Your task to perform on an android device: What's the latest video from GameSpot Reviews? Image 0: 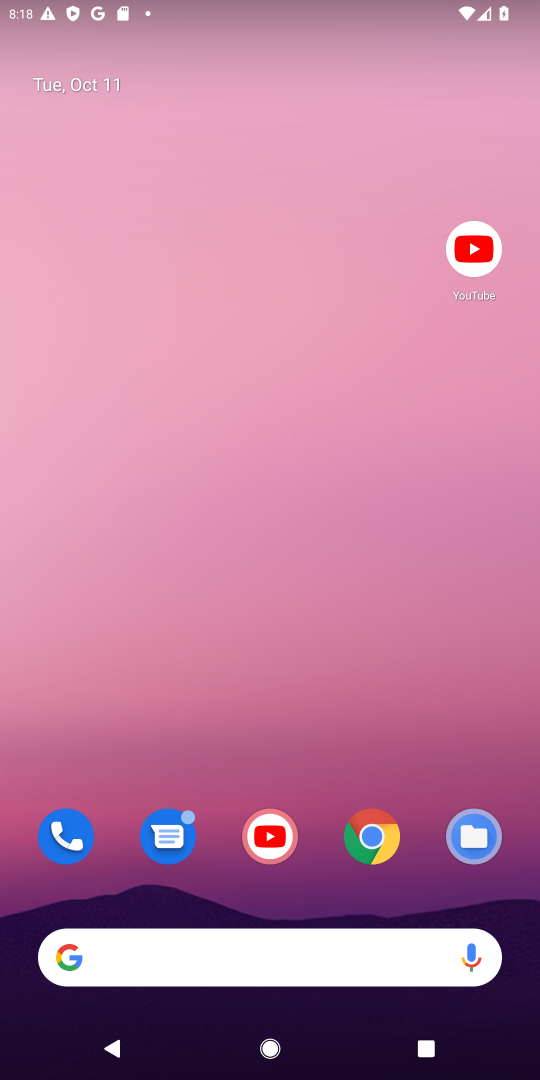
Step 0: click (371, 836)
Your task to perform on an android device: What's the latest video from GameSpot Reviews? Image 1: 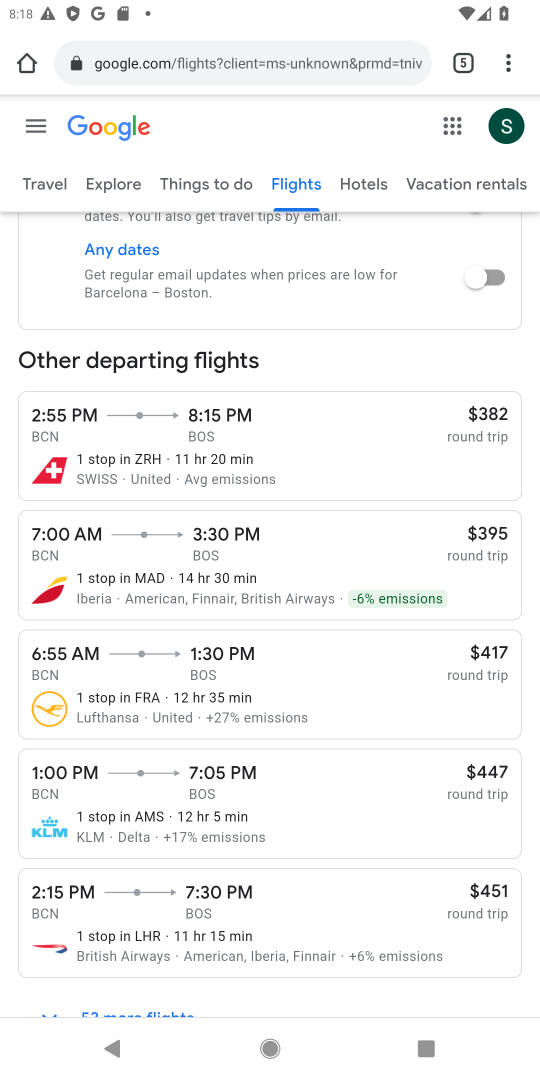
Step 1: click (274, 68)
Your task to perform on an android device: What's the latest video from GameSpot Reviews? Image 2: 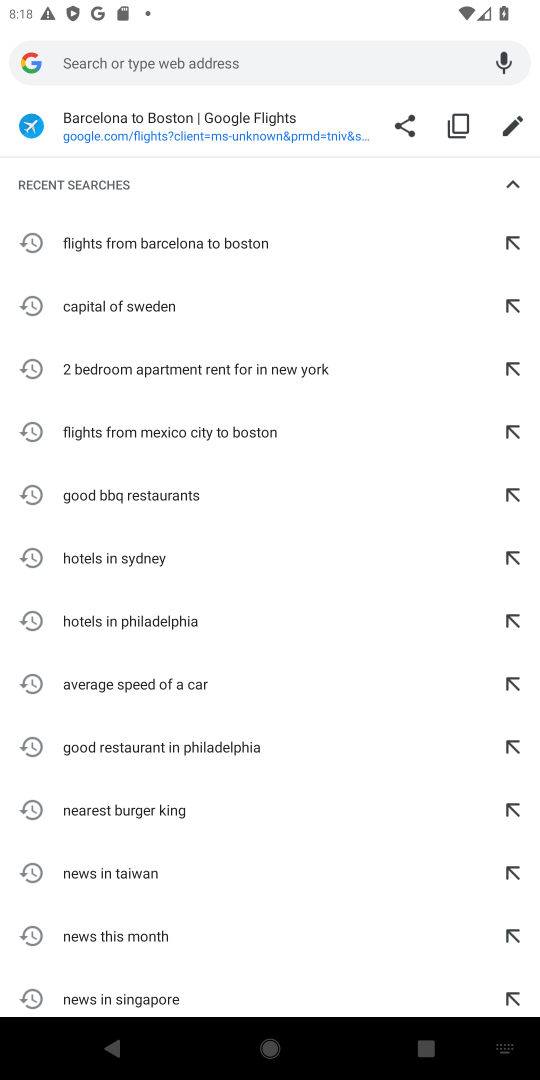
Step 2: type "latest video from GameSpot Reviews"
Your task to perform on an android device: What's the latest video from GameSpot Reviews? Image 3: 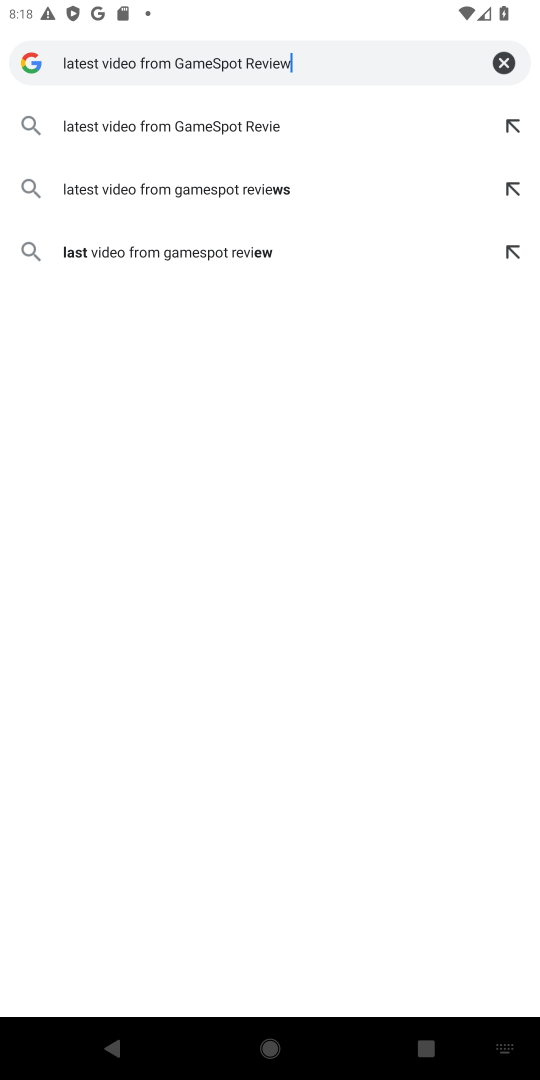
Step 3: press enter
Your task to perform on an android device: What's the latest video from GameSpot Reviews? Image 4: 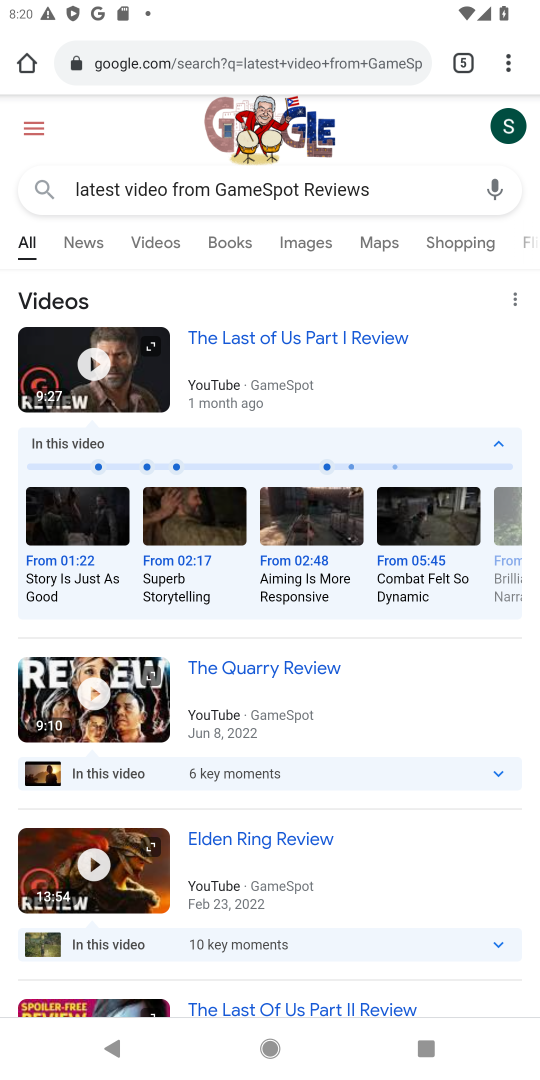
Step 4: click (92, 359)
Your task to perform on an android device: What's the latest video from GameSpot Reviews? Image 5: 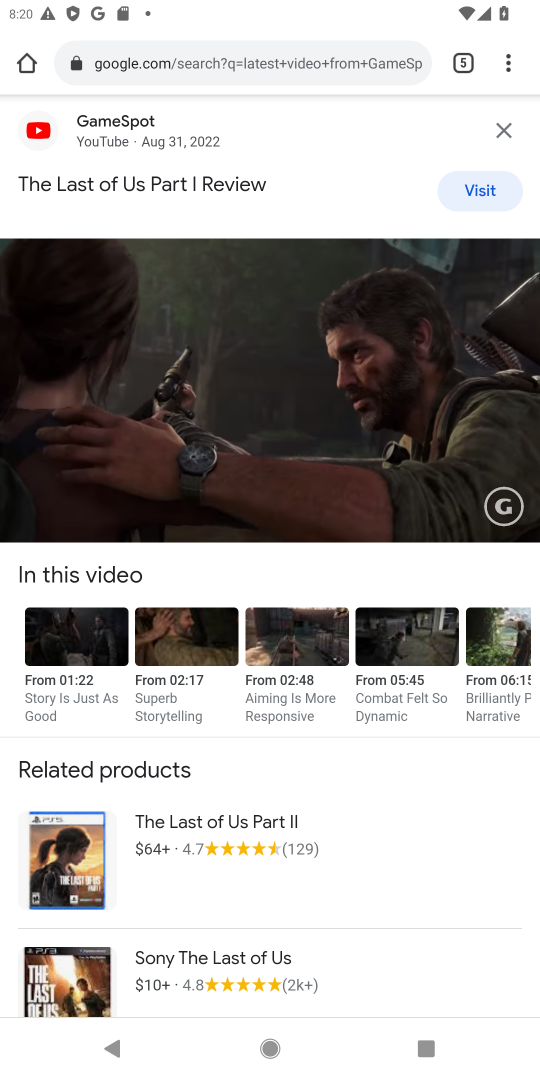
Step 5: click (285, 364)
Your task to perform on an android device: What's the latest video from GameSpot Reviews? Image 6: 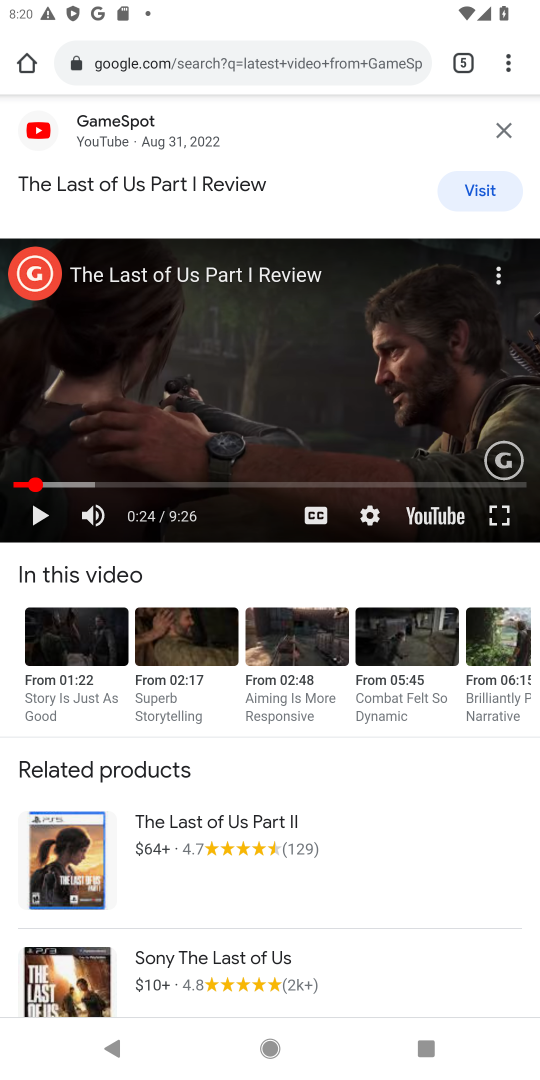
Step 6: click (276, 399)
Your task to perform on an android device: What's the latest video from GameSpot Reviews? Image 7: 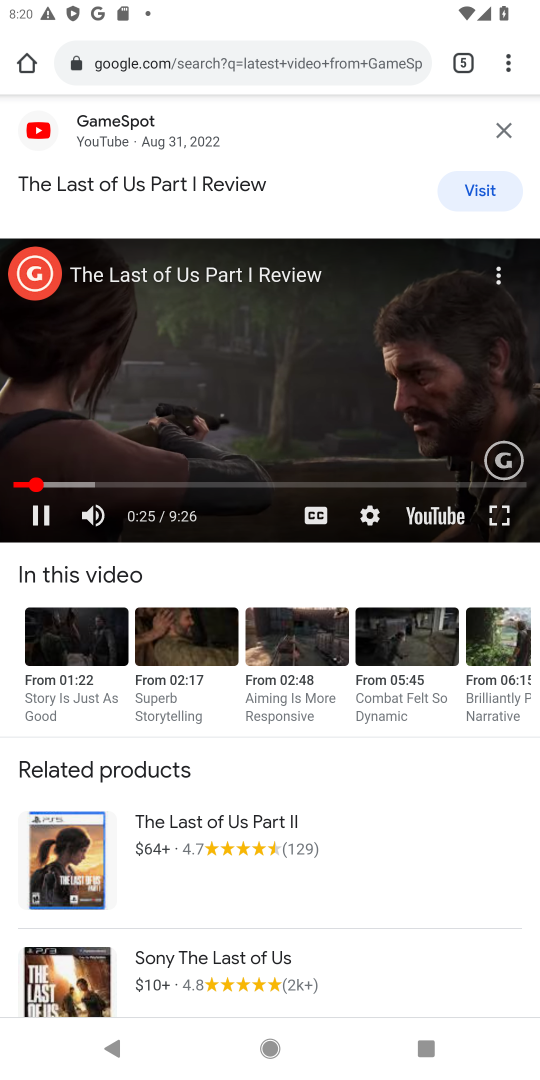
Step 7: click (277, 401)
Your task to perform on an android device: What's the latest video from GameSpot Reviews? Image 8: 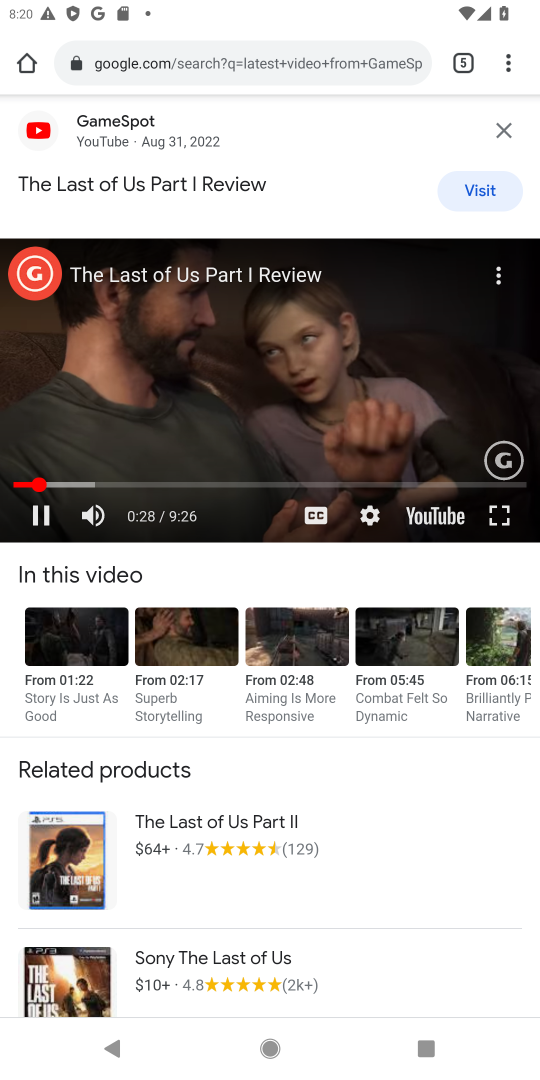
Step 8: click (284, 378)
Your task to perform on an android device: What's the latest video from GameSpot Reviews? Image 9: 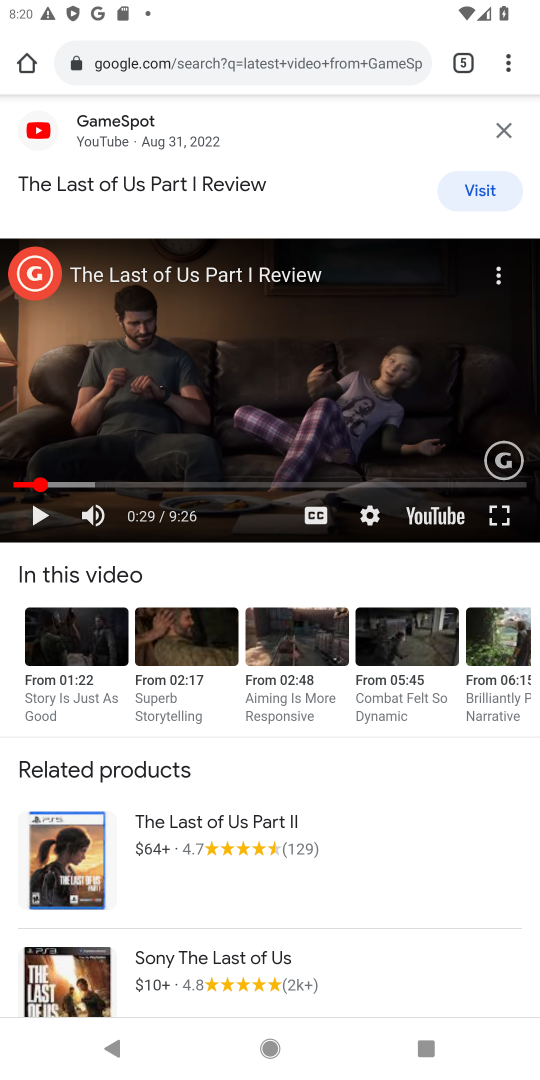
Step 9: task complete